Your task to perform on an android device: Go to display settings Image 0: 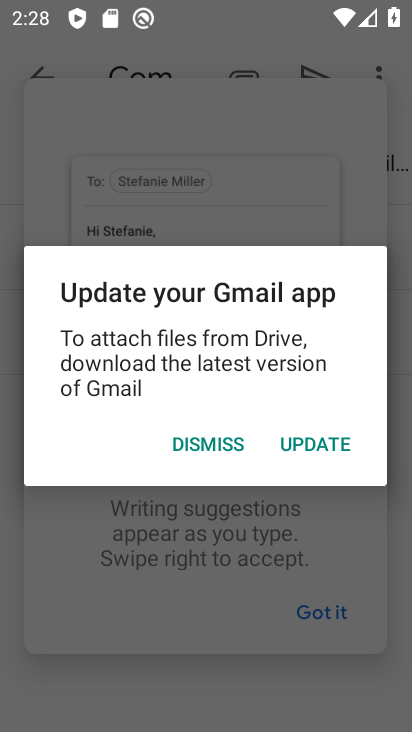
Step 0: press home button
Your task to perform on an android device: Go to display settings Image 1: 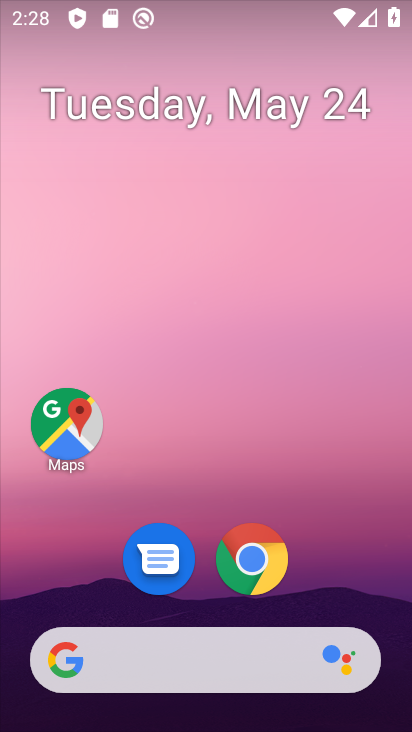
Step 1: drag from (195, 630) to (198, 210)
Your task to perform on an android device: Go to display settings Image 2: 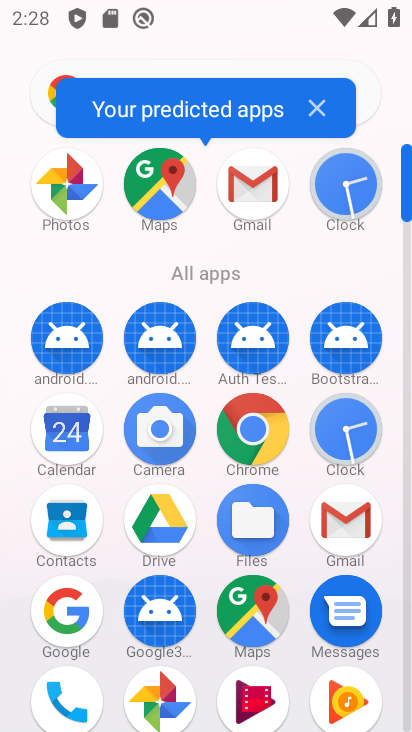
Step 2: drag from (211, 627) to (249, 200)
Your task to perform on an android device: Go to display settings Image 3: 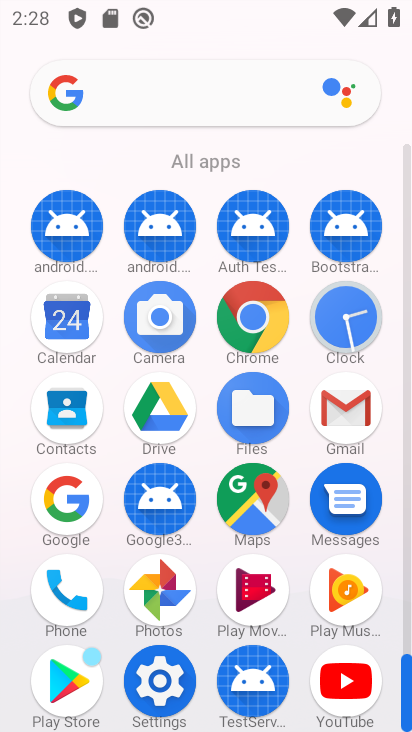
Step 3: click (158, 687)
Your task to perform on an android device: Go to display settings Image 4: 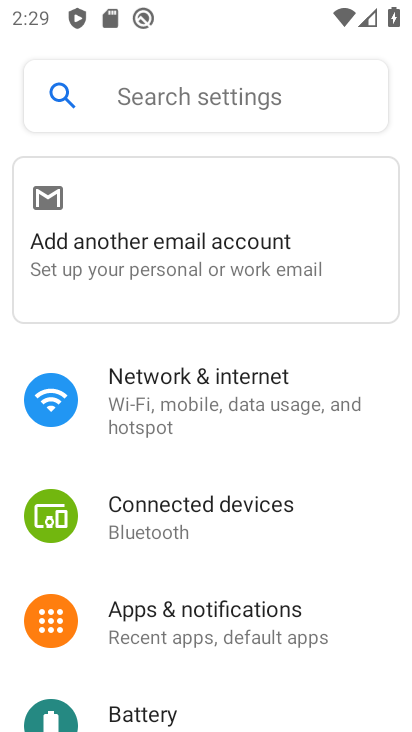
Step 4: drag from (164, 623) to (139, 171)
Your task to perform on an android device: Go to display settings Image 5: 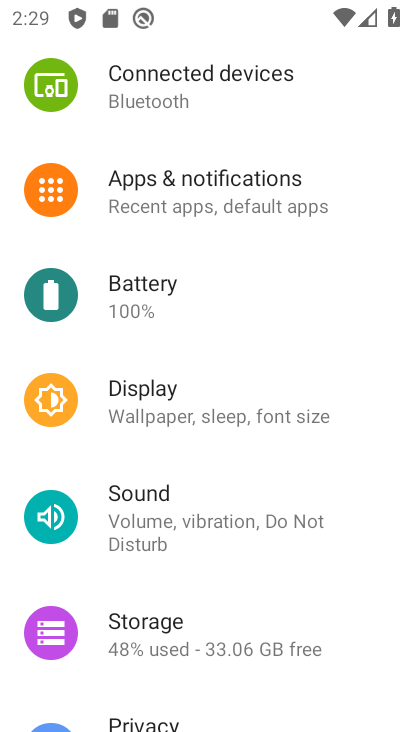
Step 5: drag from (147, 633) to (159, 171)
Your task to perform on an android device: Go to display settings Image 6: 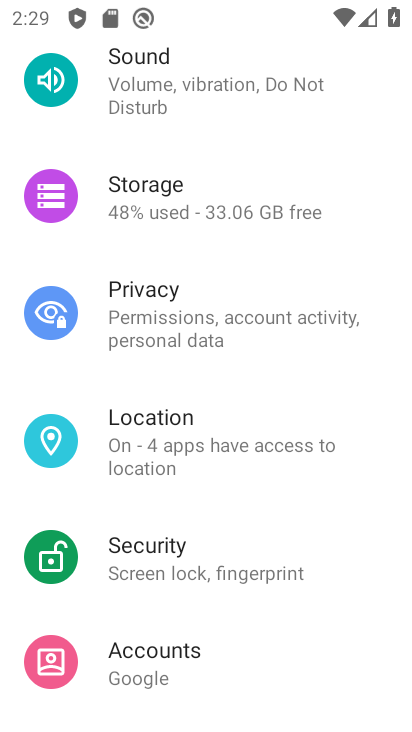
Step 6: drag from (139, 199) to (137, 501)
Your task to perform on an android device: Go to display settings Image 7: 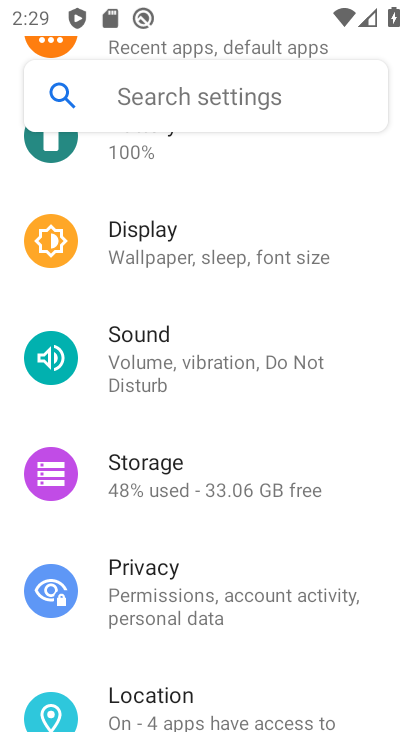
Step 7: click (119, 253)
Your task to perform on an android device: Go to display settings Image 8: 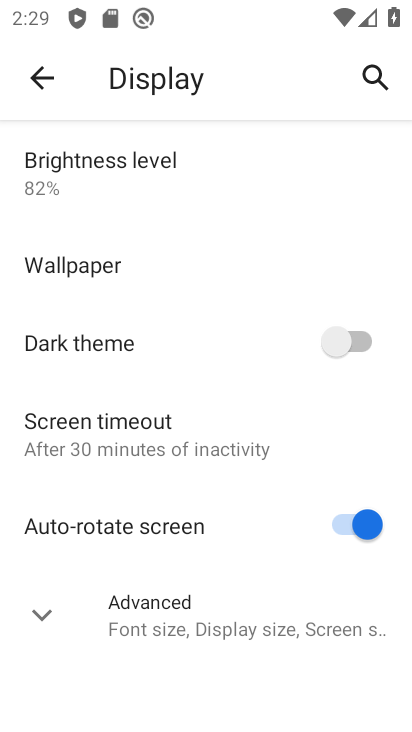
Step 8: task complete